Your task to perform on an android device: Open calendar and show me the third week of next month Image 0: 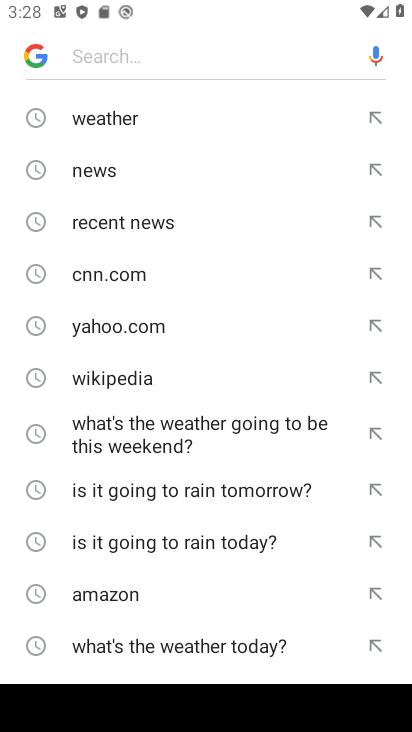
Step 0: press home button
Your task to perform on an android device: Open calendar and show me the third week of next month Image 1: 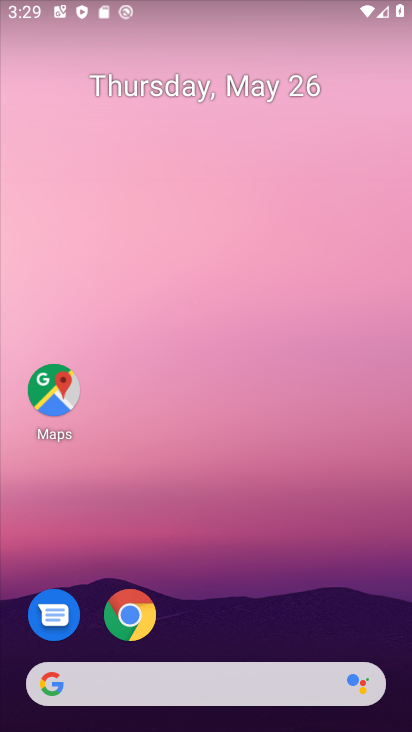
Step 1: drag from (254, 532) to (232, 53)
Your task to perform on an android device: Open calendar and show me the third week of next month Image 2: 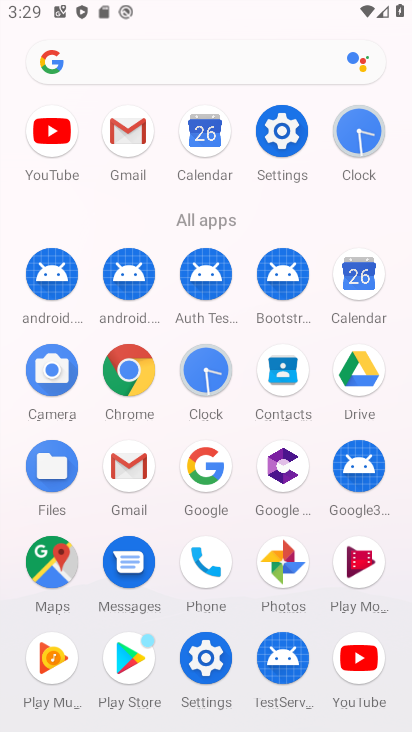
Step 2: click (372, 265)
Your task to perform on an android device: Open calendar and show me the third week of next month Image 3: 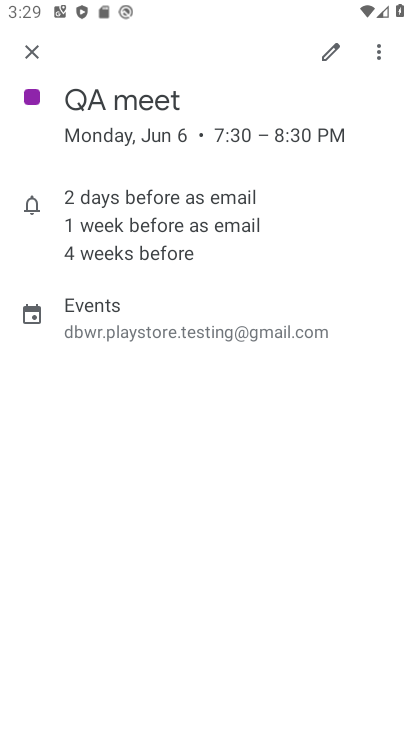
Step 3: click (44, 38)
Your task to perform on an android device: Open calendar and show me the third week of next month Image 4: 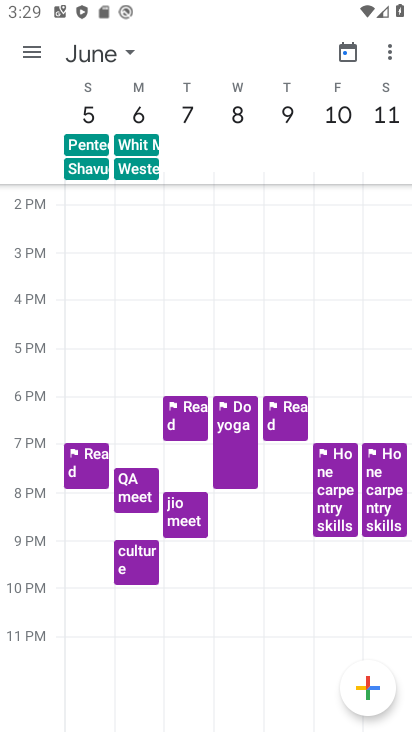
Step 4: click (134, 50)
Your task to perform on an android device: Open calendar and show me the third week of next month Image 5: 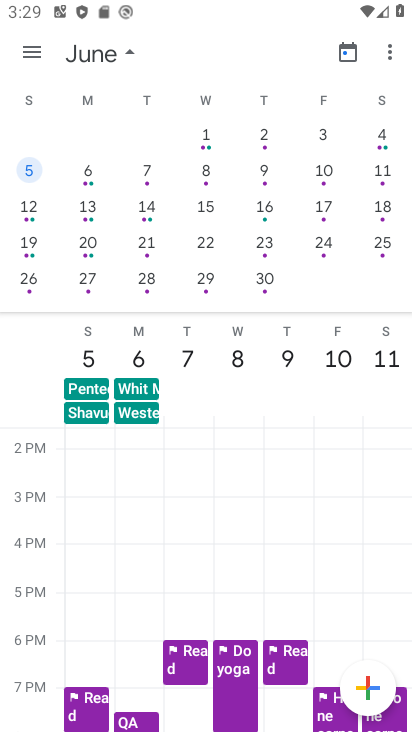
Step 5: click (93, 240)
Your task to perform on an android device: Open calendar and show me the third week of next month Image 6: 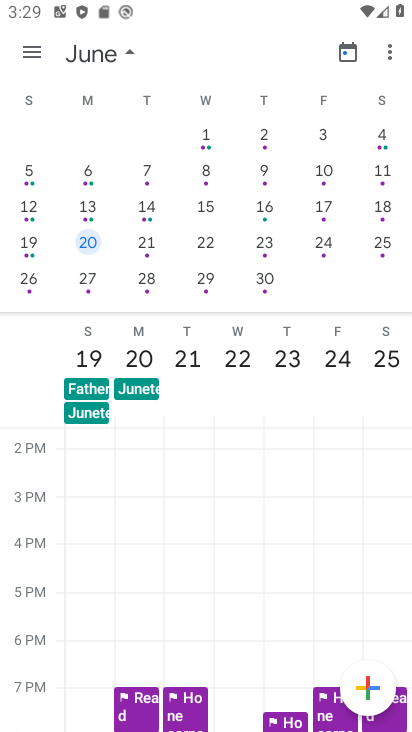
Step 6: task complete